Your task to perform on an android device: Is it going to rain this weekend? Image 0: 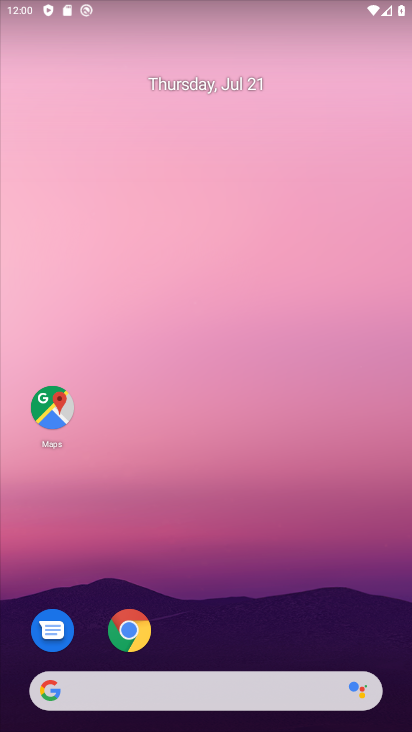
Step 0: drag from (401, 690) to (349, 82)
Your task to perform on an android device: Is it going to rain this weekend? Image 1: 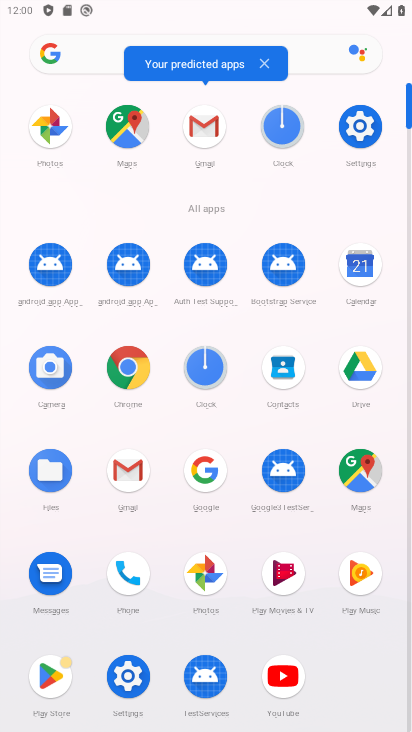
Step 1: click (211, 478)
Your task to perform on an android device: Is it going to rain this weekend? Image 2: 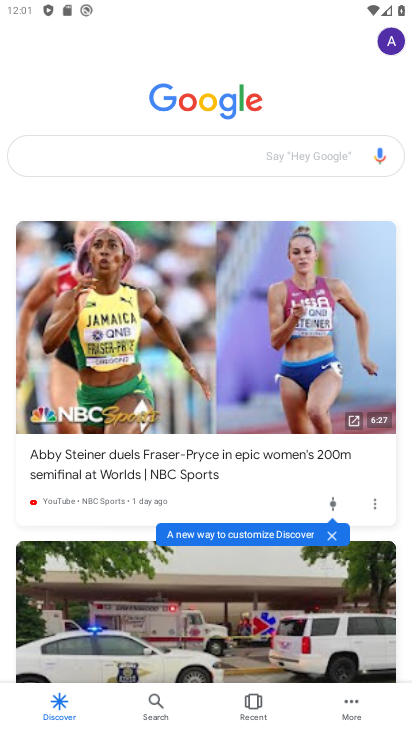
Step 2: task complete